Your task to perform on an android device: What's the weather going to be tomorrow? Image 0: 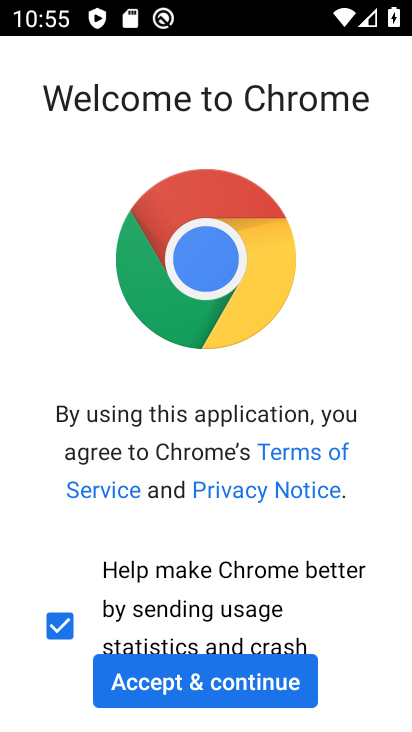
Step 0: press home button
Your task to perform on an android device: What's the weather going to be tomorrow? Image 1: 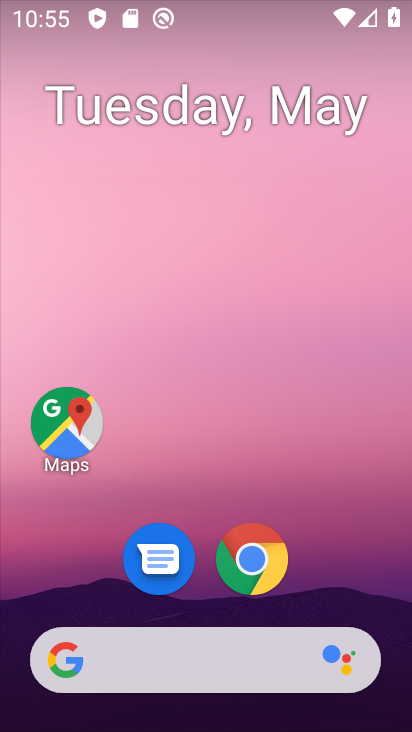
Step 1: drag from (43, 255) to (407, 281)
Your task to perform on an android device: What's the weather going to be tomorrow? Image 2: 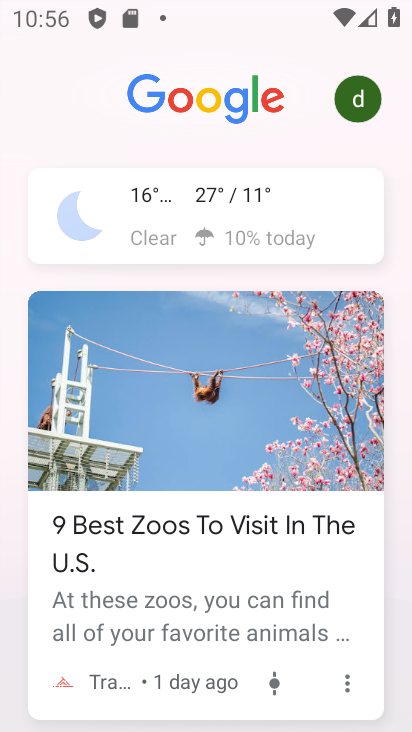
Step 2: click (268, 197)
Your task to perform on an android device: What's the weather going to be tomorrow? Image 3: 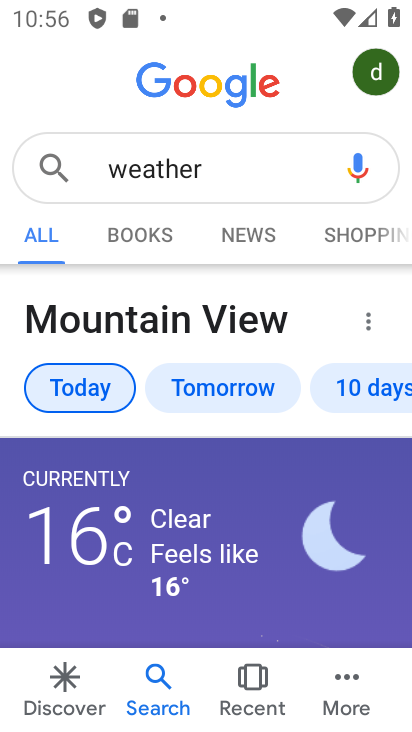
Step 3: click (237, 386)
Your task to perform on an android device: What's the weather going to be tomorrow? Image 4: 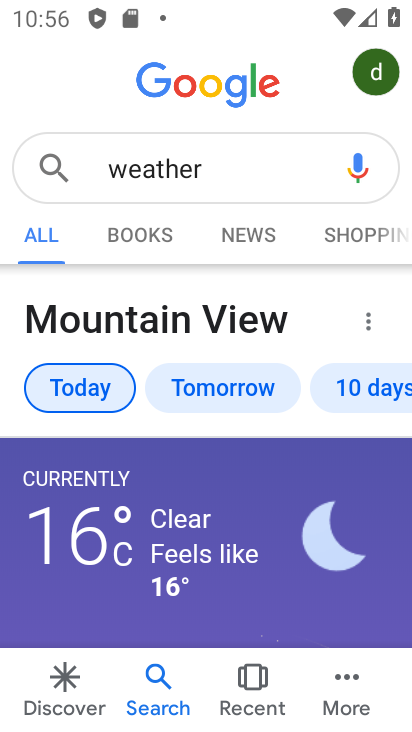
Step 4: task complete